Your task to perform on an android device: turn on the 24-hour format for clock Image 0: 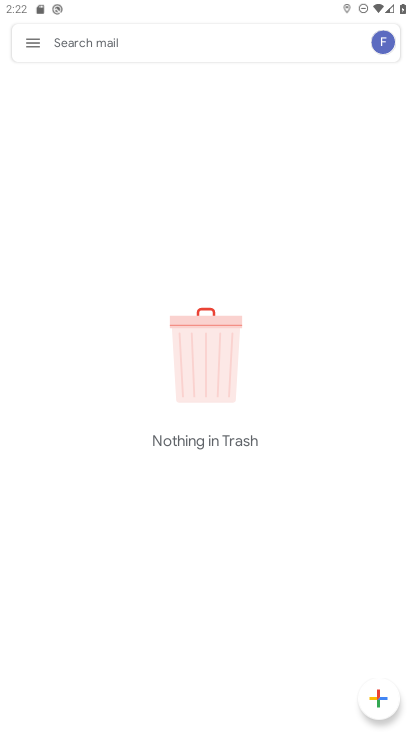
Step 0: press home button
Your task to perform on an android device: turn on the 24-hour format for clock Image 1: 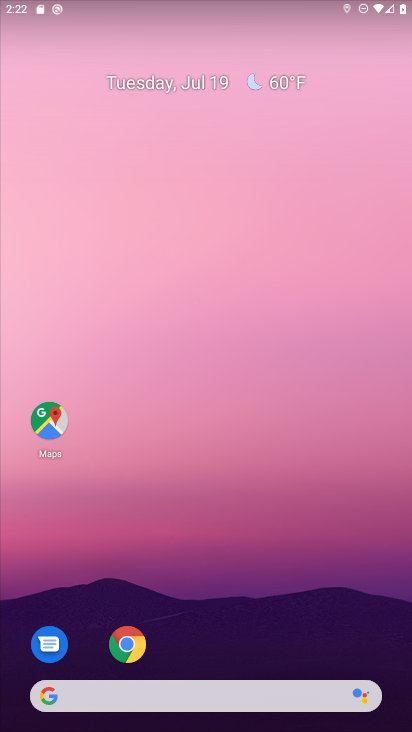
Step 1: drag from (206, 668) to (129, 177)
Your task to perform on an android device: turn on the 24-hour format for clock Image 2: 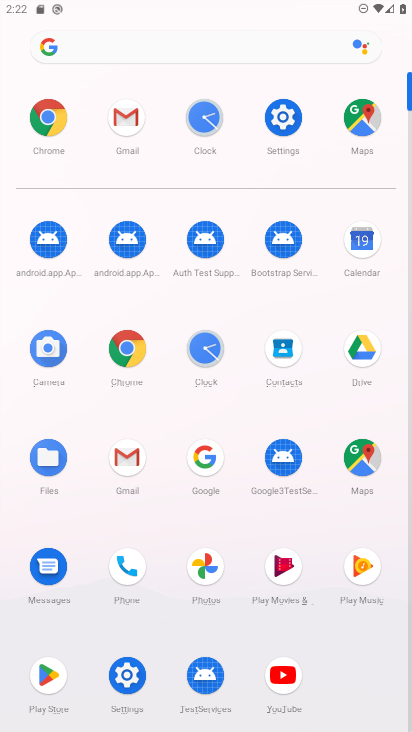
Step 2: click (195, 351)
Your task to perform on an android device: turn on the 24-hour format for clock Image 3: 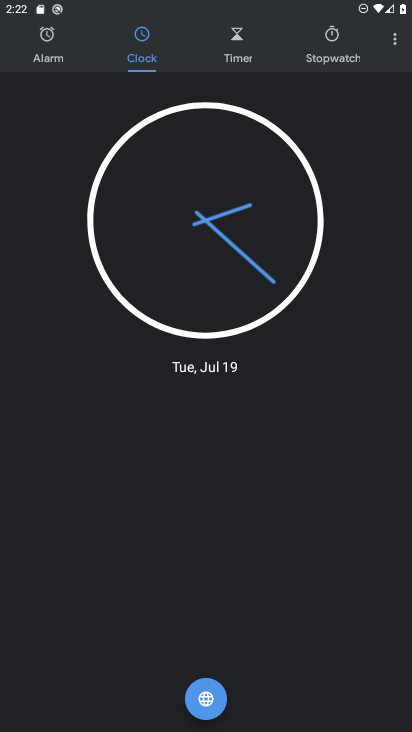
Step 3: click (391, 39)
Your task to perform on an android device: turn on the 24-hour format for clock Image 4: 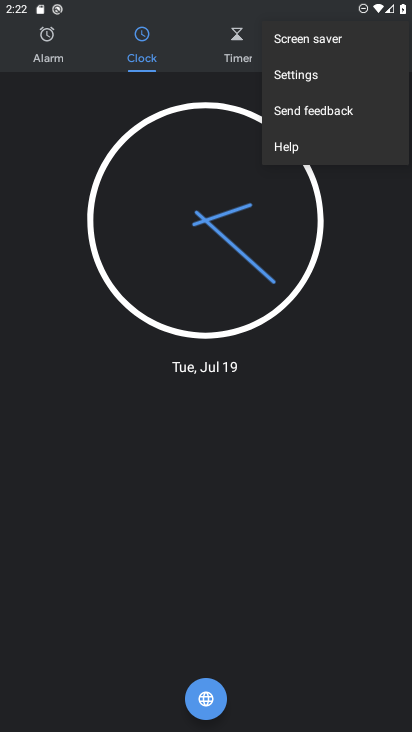
Step 4: click (290, 71)
Your task to perform on an android device: turn on the 24-hour format for clock Image 5: 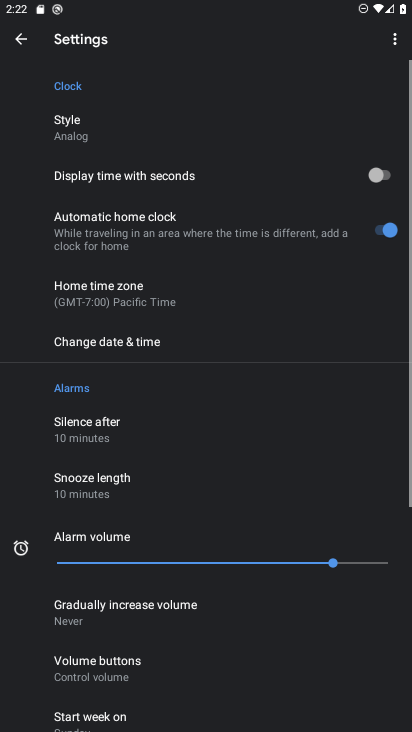
Step 5: drag from (199, 580) to (167, 146)
Your task to perform on an android device: turn on the 24-hour format for clock Image 6: 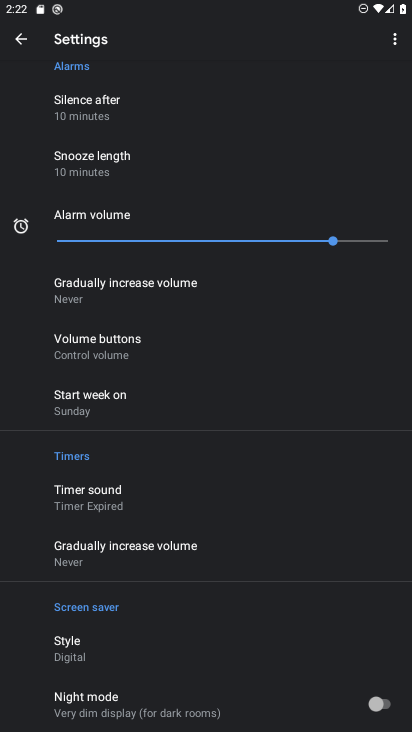
Step 6: drag from (142, 660) to (114, 292)
Your task to perform on an android device: turn on the 24-hour format for clock Image 7: 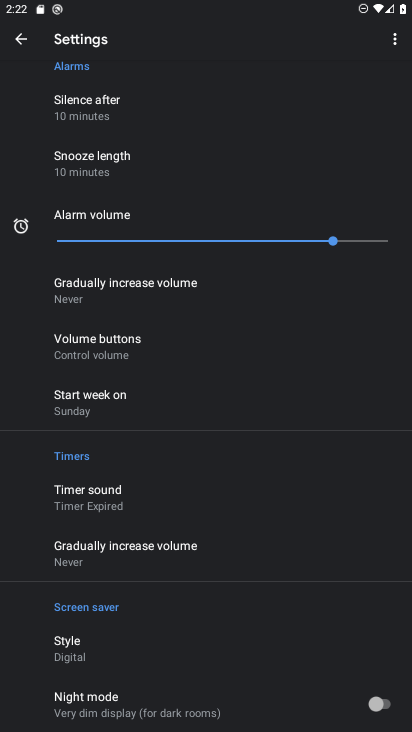
Step 7: drag from (124, 675) to (120, 243)
Your task to perform on an android device: turn on the 24-hour format for clock Image 8: 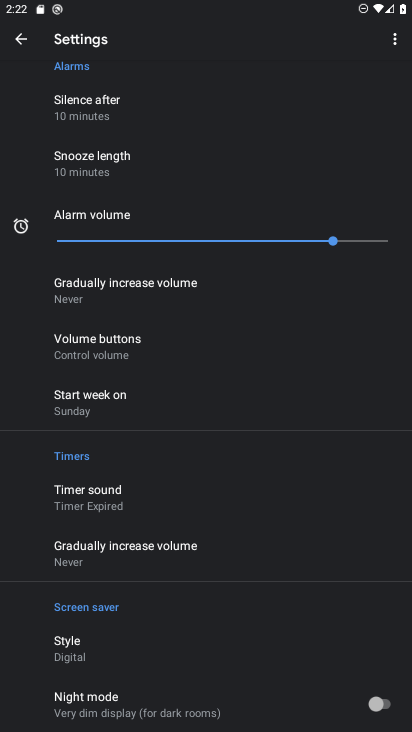
Step 8: drag from (102, 124) to (111, 537)
Your task to perform on an android device: turn on the 24-hour format for clock Image 9: 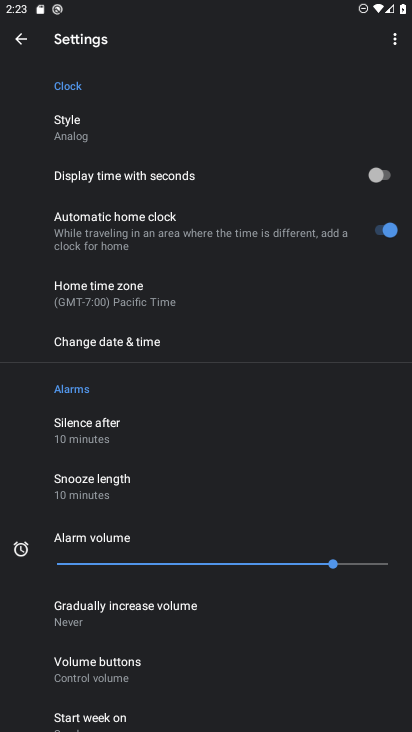
Step 9: click (83, 349)
Your task to perform on an android device: turn on the 24-hour format for clock Image 10: 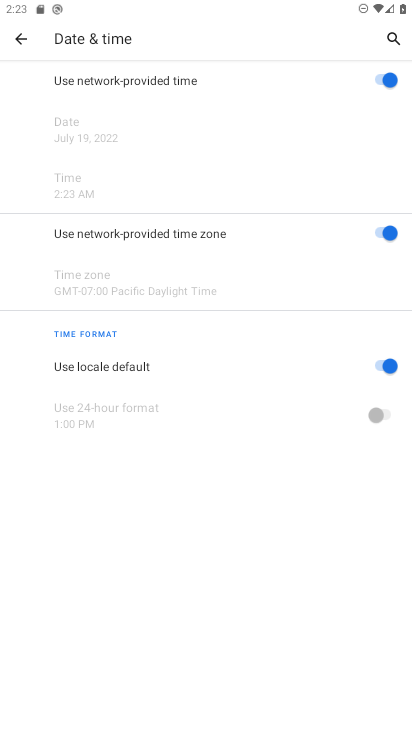
Step 10: click (389, 364)
Your task to perform on an android device: turn on the 24-hour format for clock Image 11: 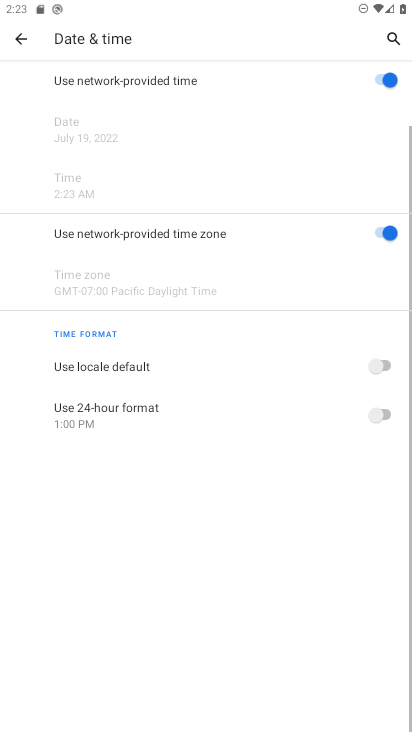
Step 11: click (382, 414)
Your task to perform on an android device: turn on the 24-hour format for clock Image 12: 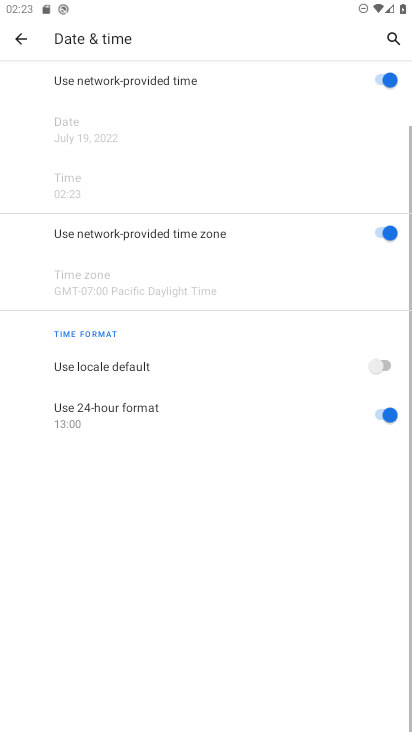
Step 12: task complete